Your task to perform on an android device: turn on bluetooth scan Image 0: 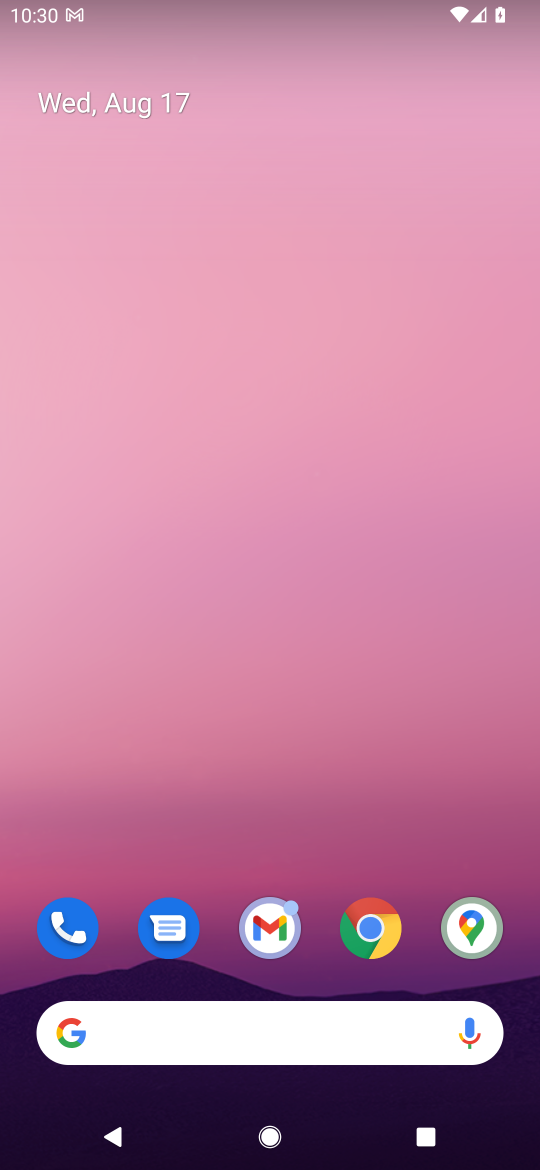
Step 0: drag from (306, 862) to (270, 237)
Your task to perform on an android device: turn on bluetooth scan Image 1: 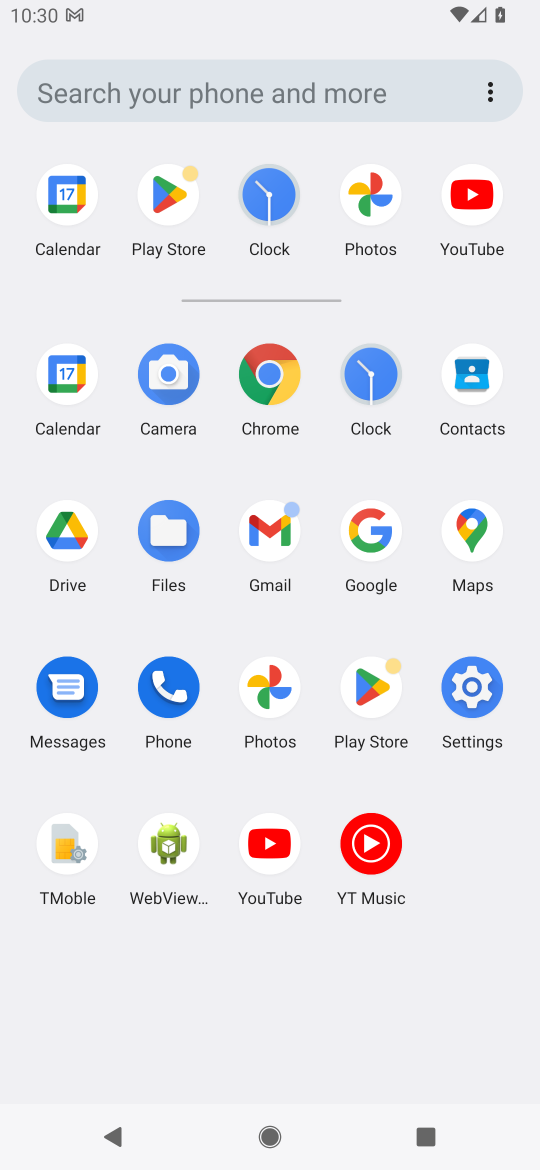
Step 1: click (484, 709)
Your task to perform on an android device: turn on bluetooth scan Image 2: 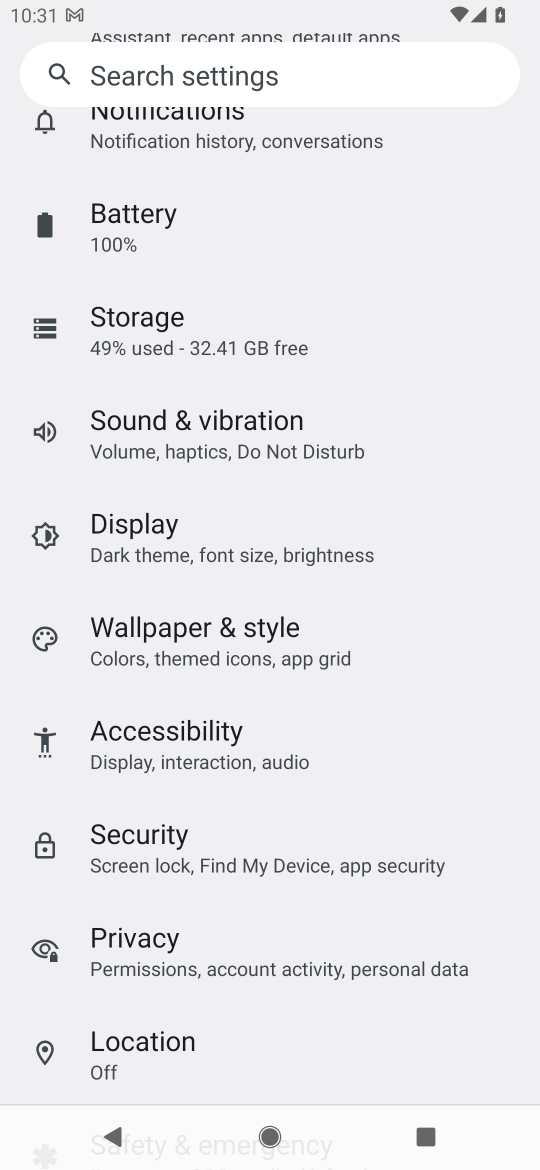
Step 2: drag from (124, 265) to (157, 191)
Your task to perform on an android device: turn on bluetooth scan Image 3: 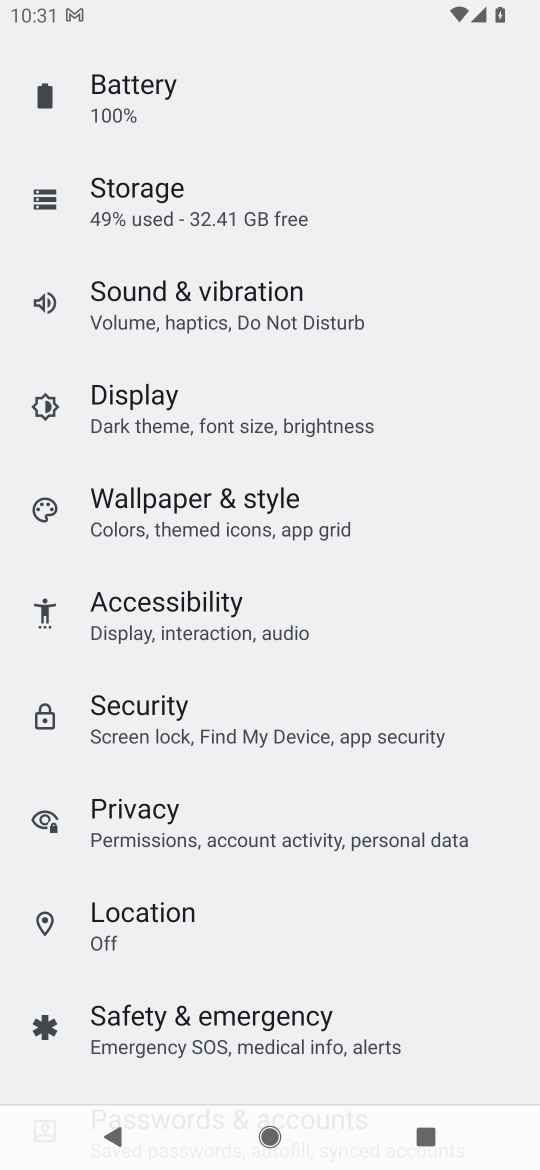
Step 3: click (251, 927)
Your task to perform on an android device: turn on bluetooth scan Image 4: 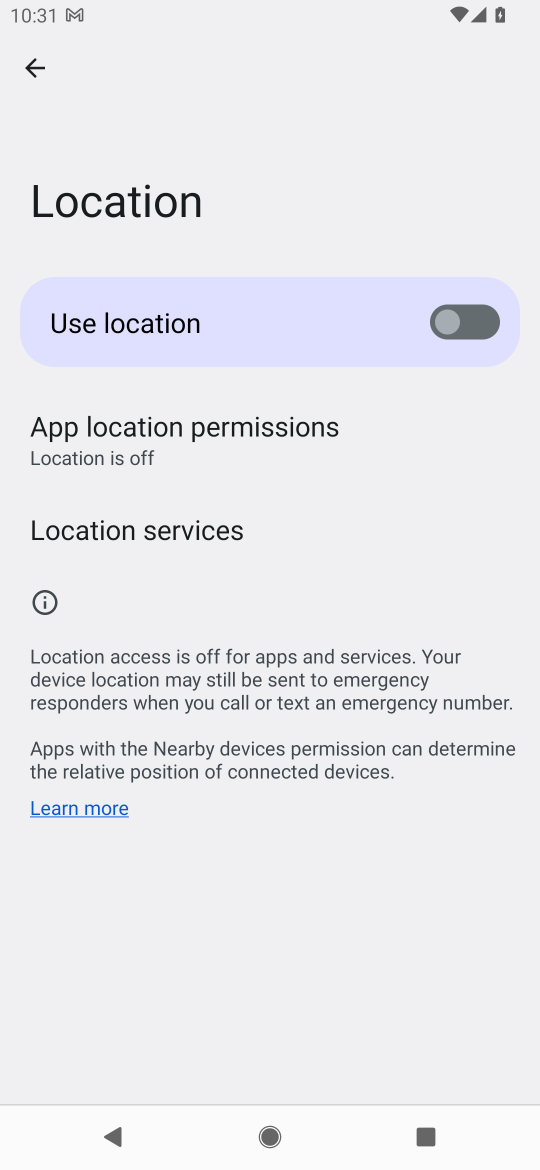
Step 4: click (191, 546)
Your task to perform on an android device: turn on bluetooth scan Image 5: 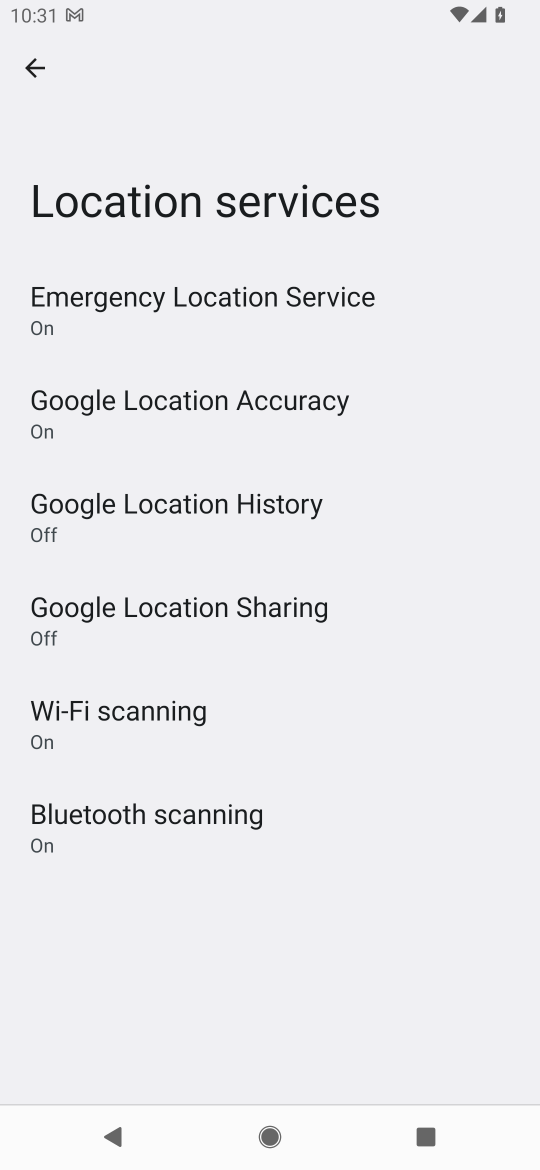
Step 5: click (325, 821)
Your task to perform on an android device: turn on bluetooth scan Image 6: 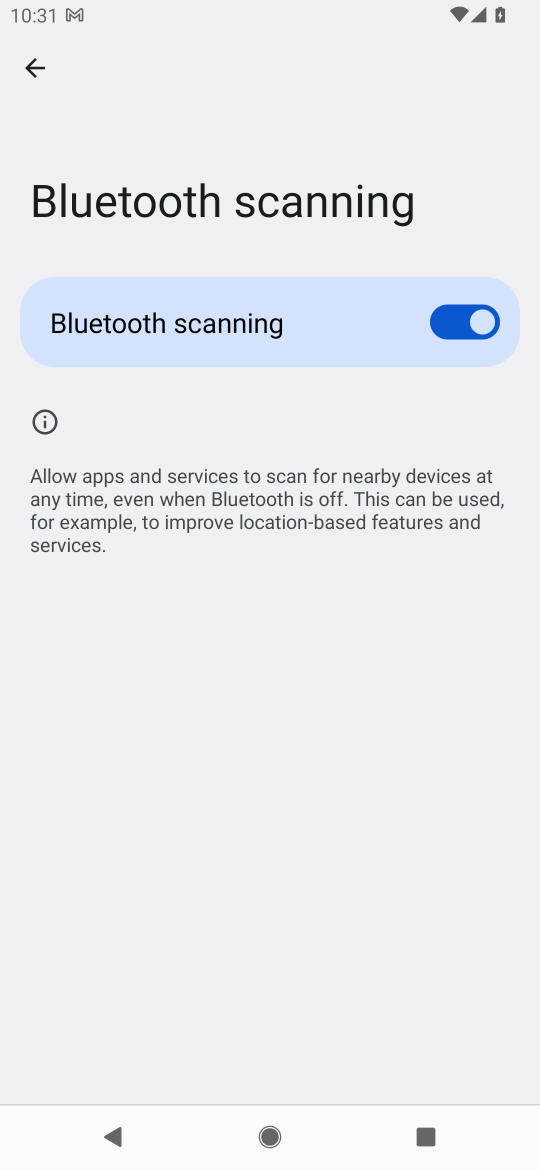
Step 6: task complete